Your task to perform on an android device: Go to ESPN.com Image 0: 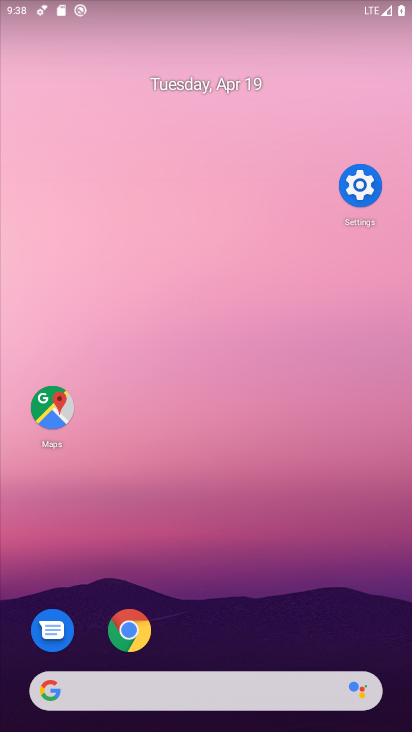
Step 0: drag from (223, 548) to (201, 140)
Your task to perform on an android device: Go to ESPN.com Image 1: 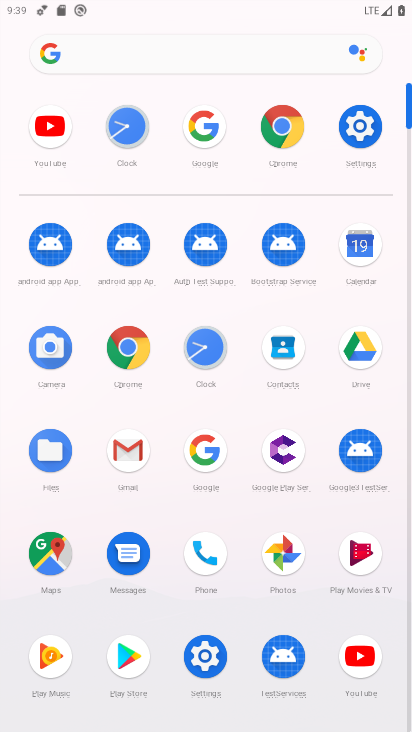
Step 1: click (296, 126)
Your task to perform on an android device: Go to ESPN.com Image 2: 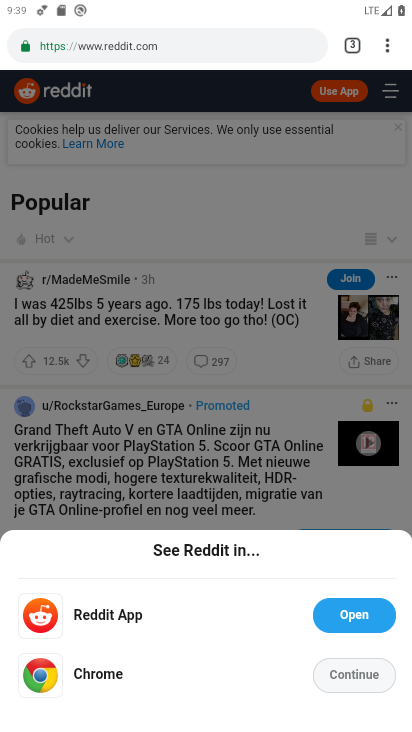
Step 2: click (285, 41)
Your task to perform on an android device: Go to ESPN.com Image 3: 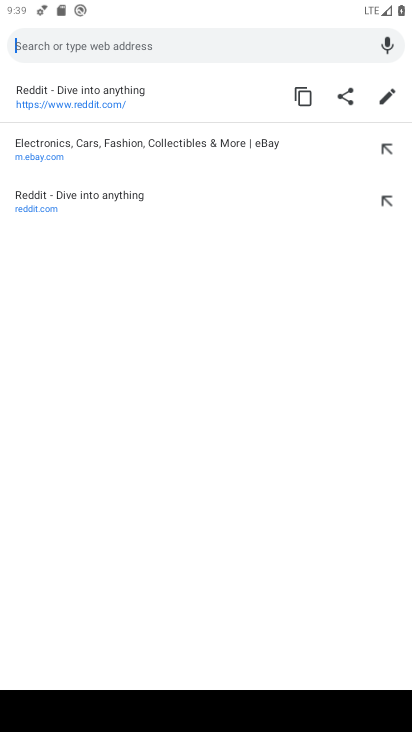
Step 3: type "espn.com"
Your task to perform on an android device: Go to ESPN.com Image 4: 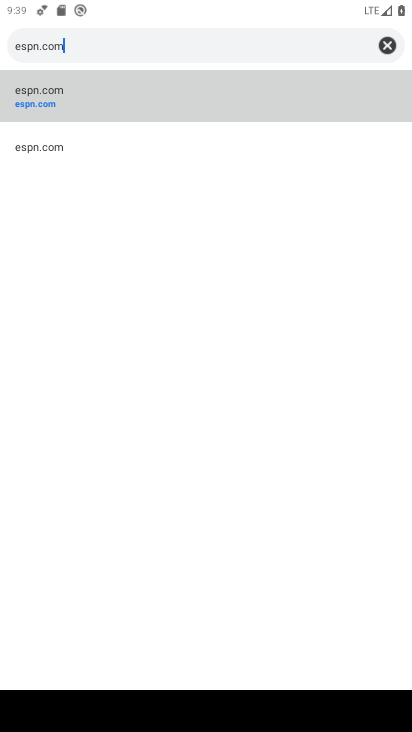
Step 4: click (166, 103)
Your task to perform on an android device: Go to ESPN.com Image 5: 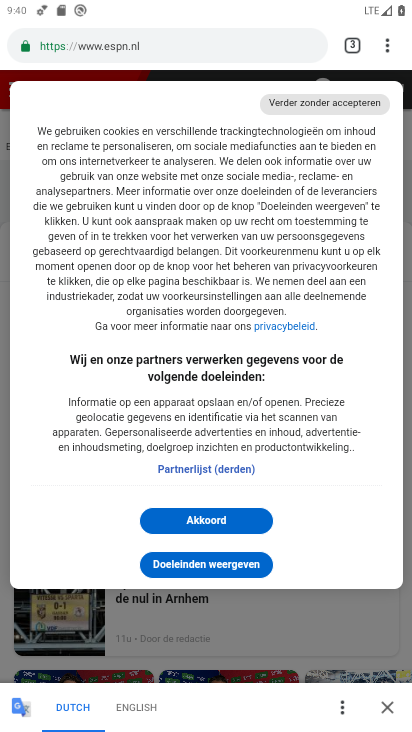
Step 5: task complete